Your task to perform on an android device: move an email to a new category in the gmail app Image 0: 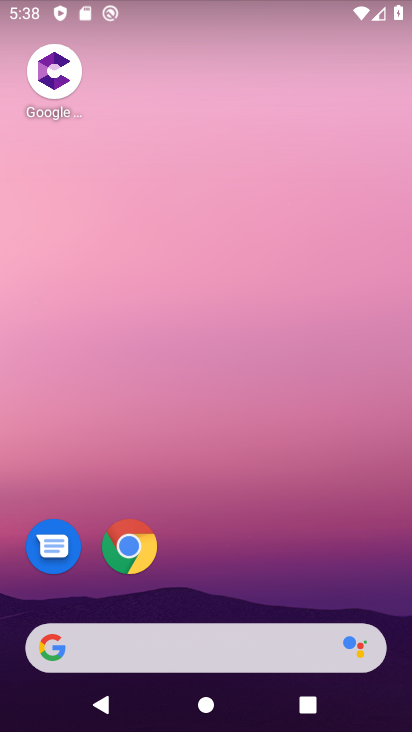
Step 0: drag from (245, 560) to (211, 180)
Your task to perform on an android device: move an email to a new category in the gmail app Image 1: 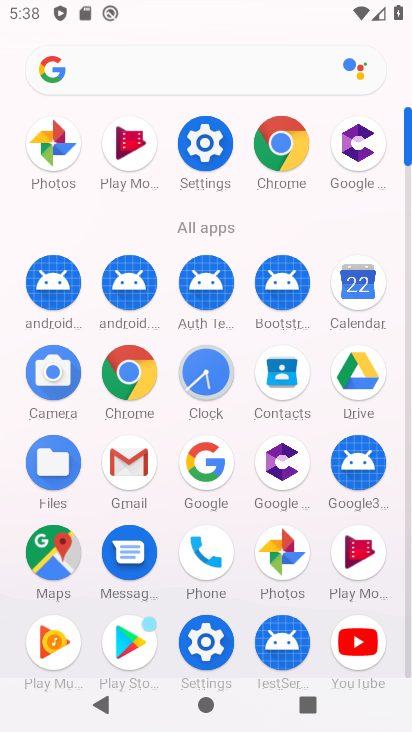
Step 1: click (128, 450)
Your task to perform on an android device: move an email to a new category in the gmail app Image 2: 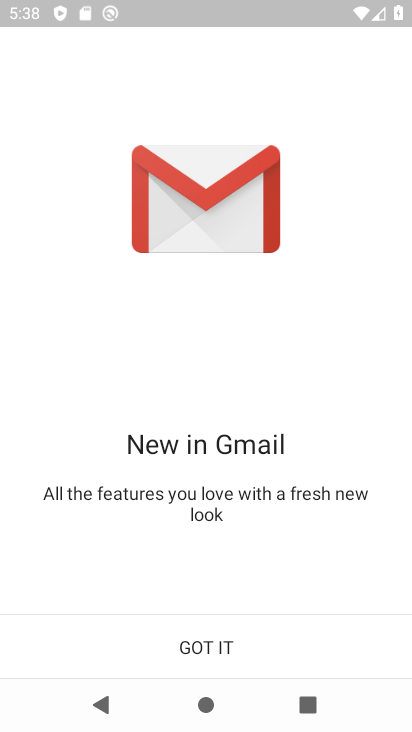
Step 2: click (161, 648)
Your task to perform on an android device: move an email to a new category in the gmail app Image 3: 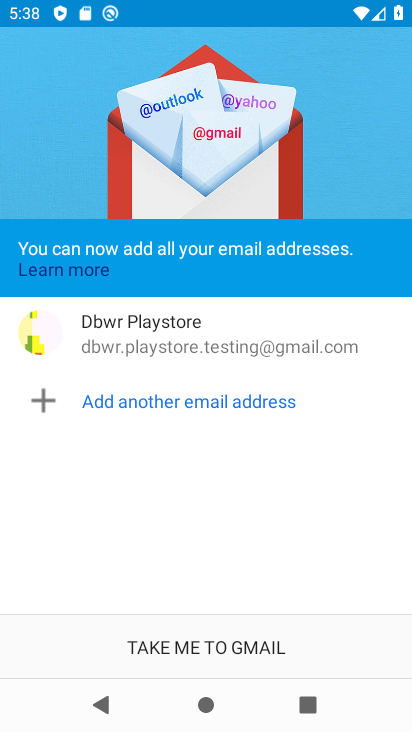
Step 3: click (217, 648)
Your task to perform on an android device: move an email to a new category in the gmail app Image 4: 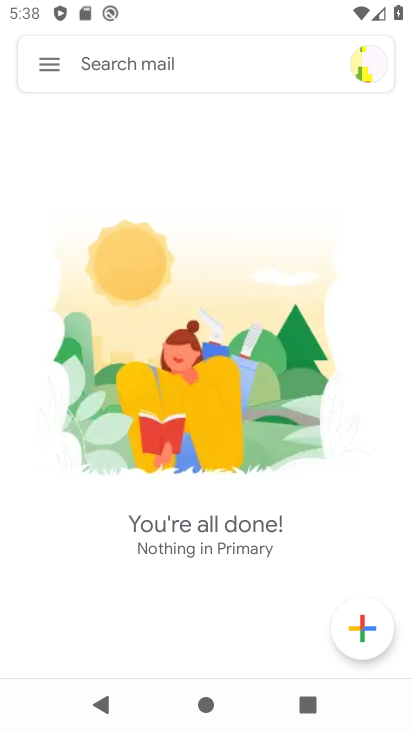
Step 4: click (42, 72)
Your task to perform on an android device: move an email to a new category in the gmail app Image 5: 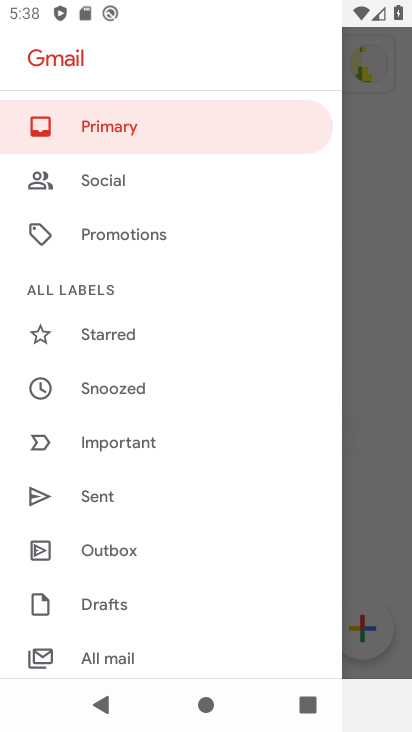
Step 5: click (125, 655)
Your task to perform on an android device: move an email to a new category in the gmail app Image 6: 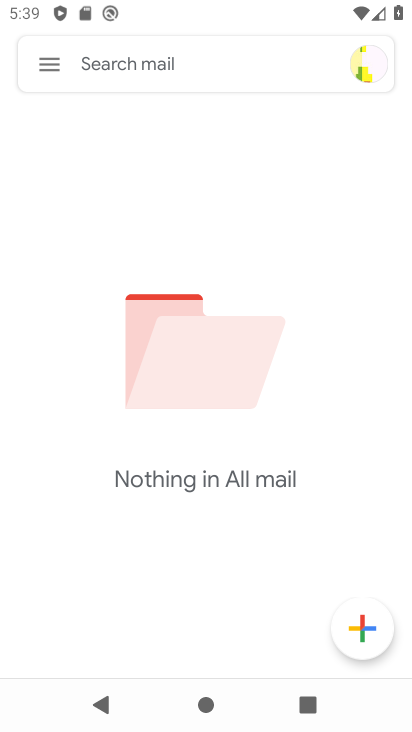
Step 6: task complete